Your task to perform on an android device: Go to privacy settings Image 0: 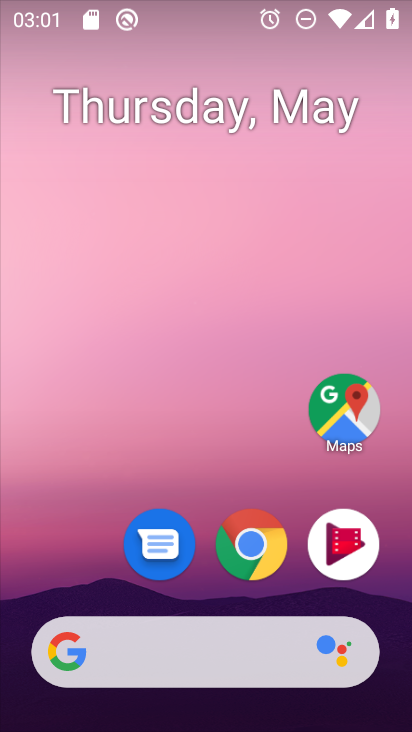
Step 0: drag from (67, 496) to (85, 137)
Your task to perform on an android device: Go to privacy settings Image 1: 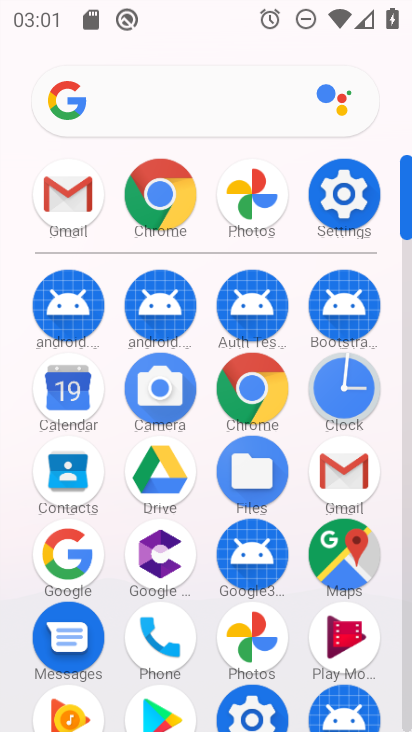
Step 1: click (367, 202)
Your task to perform on an android device: Go to privacy settings Image 2: 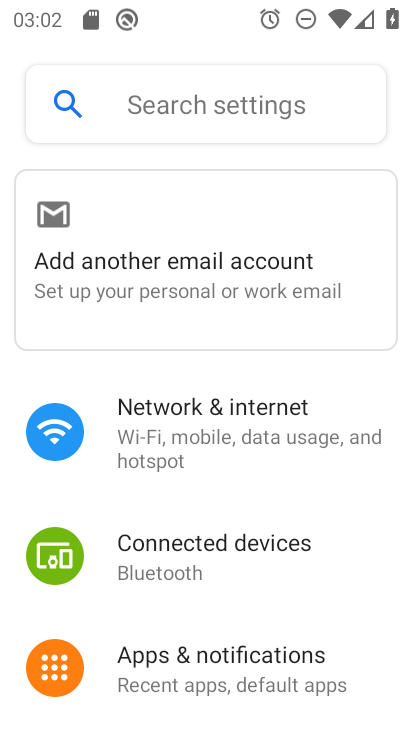
Step 2: drag from (352, 548) to (360, 415)
Your task to perform on an android device: Go to privacy settings Image 3: 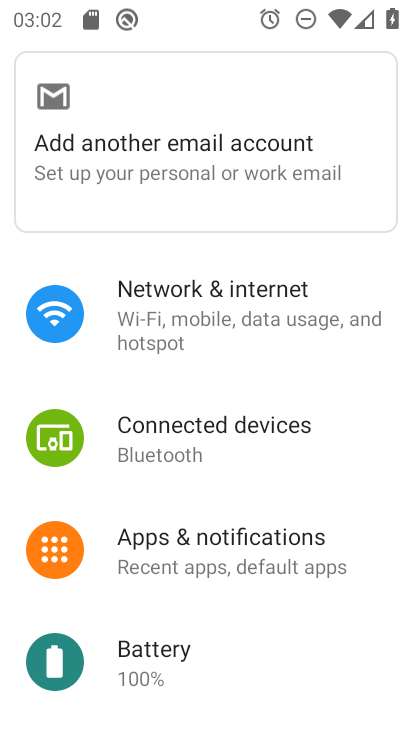
Step 3: drag from (359, 619) to (363, 479)
Your task to perform on an android device: Go to privacy settings Image 4: 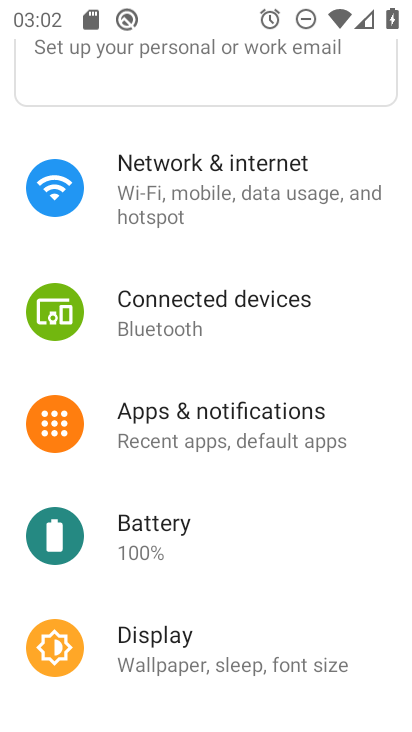
Step 4: drag from (342, 603) to (339, 433)
Your task to perform on an android device: Go to privacy settings Image 5: 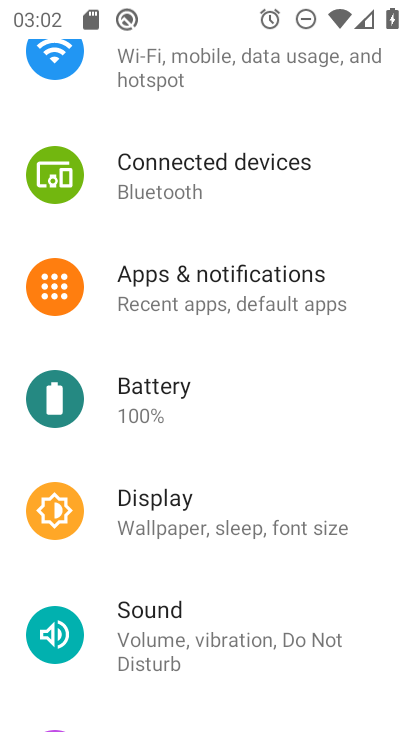
Step 5: drag from (326, 615) to (324, 431)
Your task to perform on an android device: Go to privacy settings Image 6: 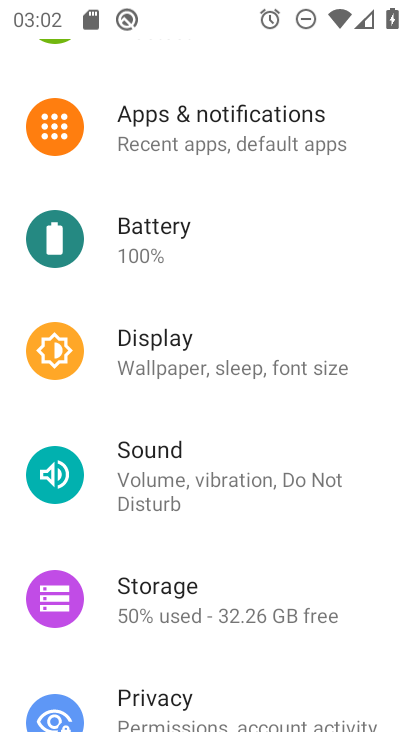
Step 6: drag from (338, 658) to (339, 473)
Your task to perform on an android device: Go to privacy settings Image 7: 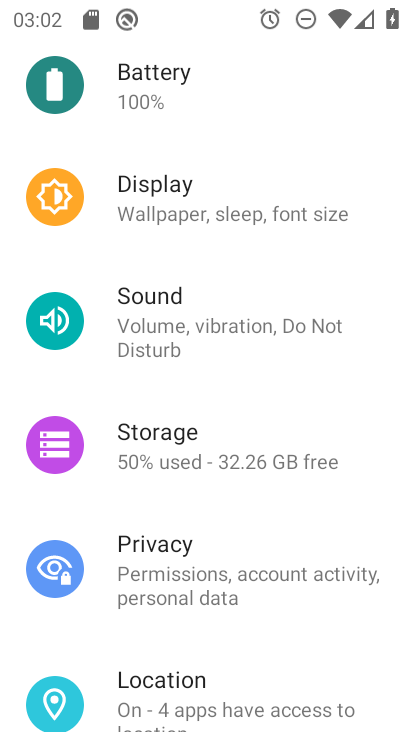
Step 7: drag from (330, 647) to (330, 503)
Your task to perform on an android device: Go to privacy settings Image 8: 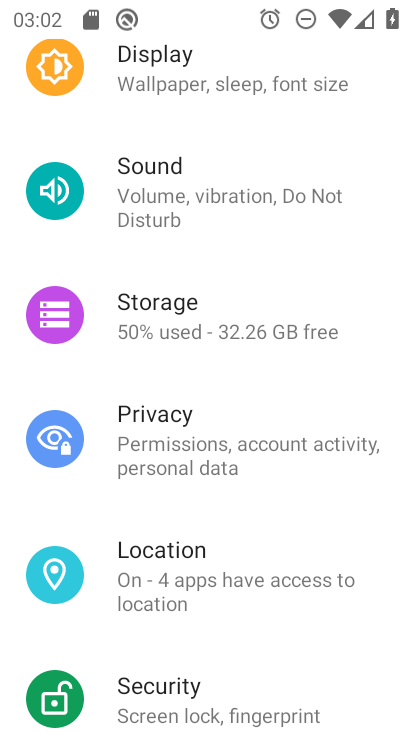
Step 8: drag from (327, 668) to (320, 517)
Your task to perform on an android device: Go to privacy settings Image 9: 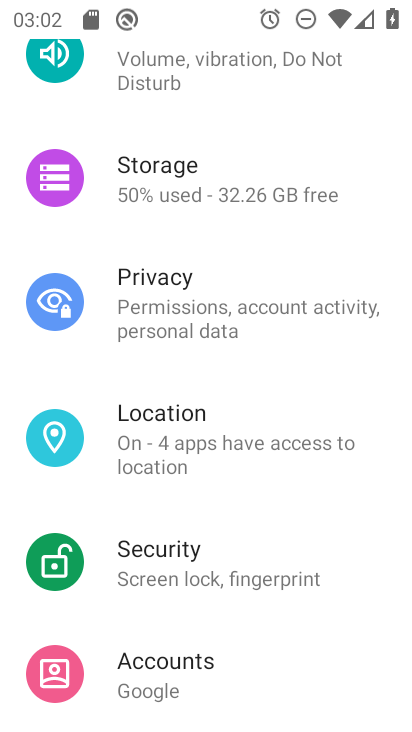
Step 9: drag from (324, 661) to (329, 531)
Your task to perform on an android device: Go to privacy settings Image 10: 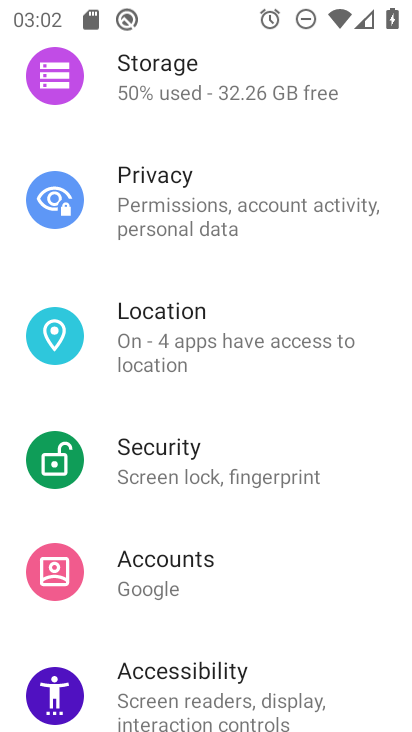
Step 10: drag from (326, 682) to (337, 542)
Your task to perform on an android device: Go to privacy settings Image 11: 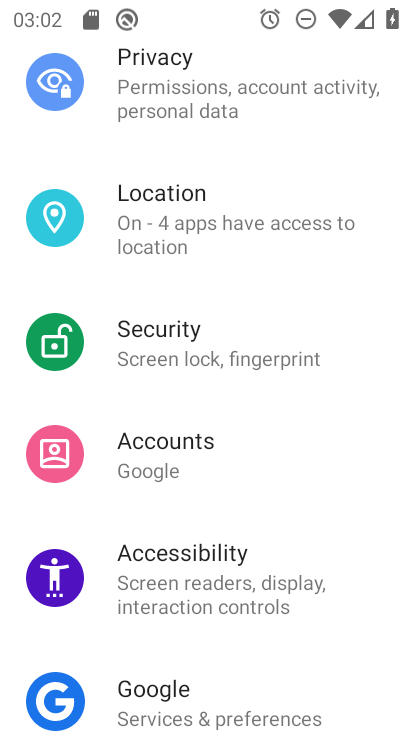
Step 11: drag from (326, 659) to (317, 511)
Your task to perform on an android device: Go to privacy settings Image 12: 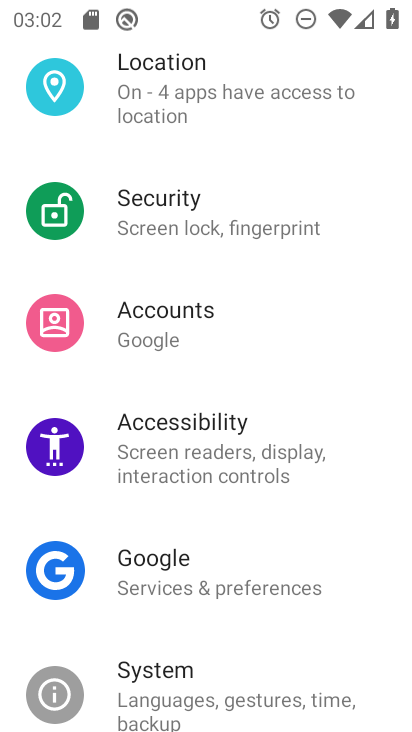
Step 12: drag from (336, 640) to (357, 492)
Your task to perform on an android device: Go to privacy settings Image 13: 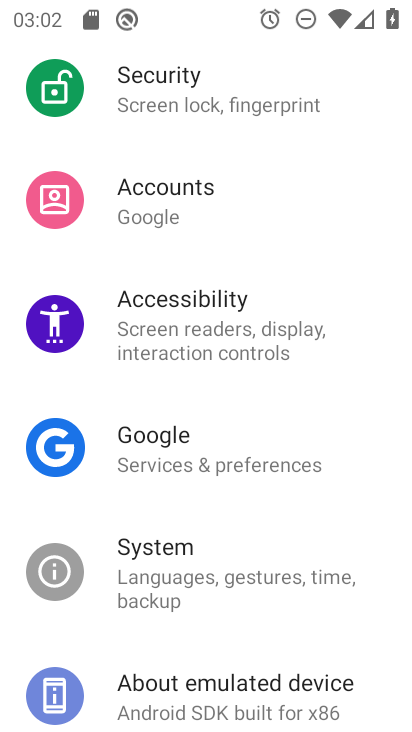
Step 13: drag from (352, 622) to (368, 451)
Your task to perform on an android device: Go to privacy settings Image 14: 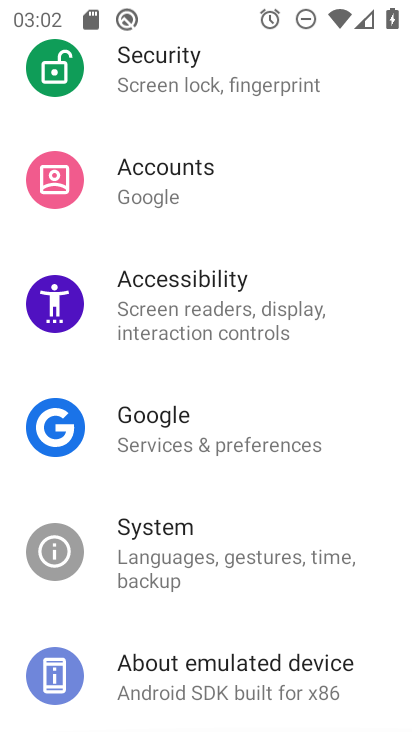
Step 14: drag from (379, 384) to (364, 511)
Your task to perform on an android device: Go to privacy settings Image 15: 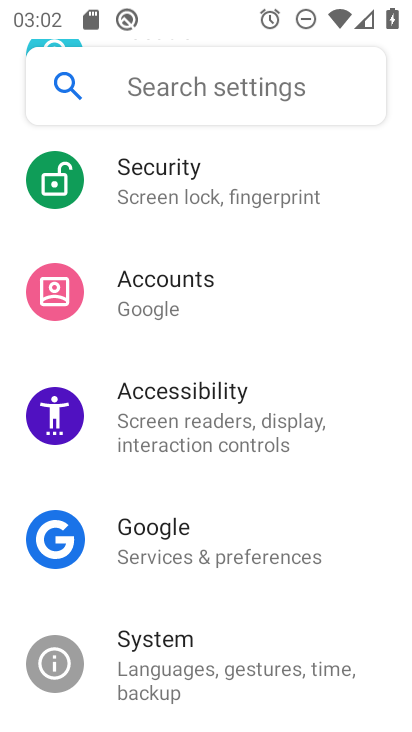
Step 15: drag from (373, 364) to (366, 488)
Your task to perform on an android device: Go to privacy settings Image 16: 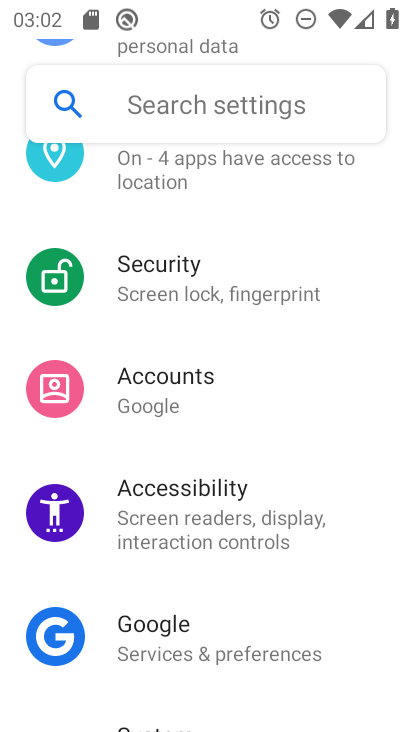
Step 16: drag from (371, 311) to (353, 445)
Your task to perform on an android device: Go to privacy settings Image 17: 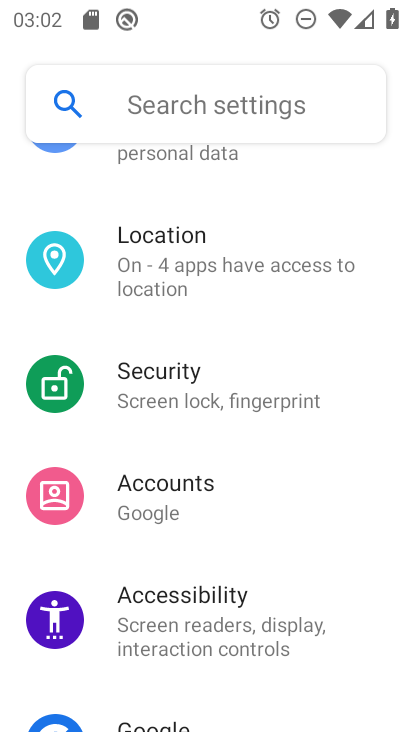
Step 17: drag from (351, 285) to (334, 418)
Your task to perform on an android device: Go to privacy settings Image 18: 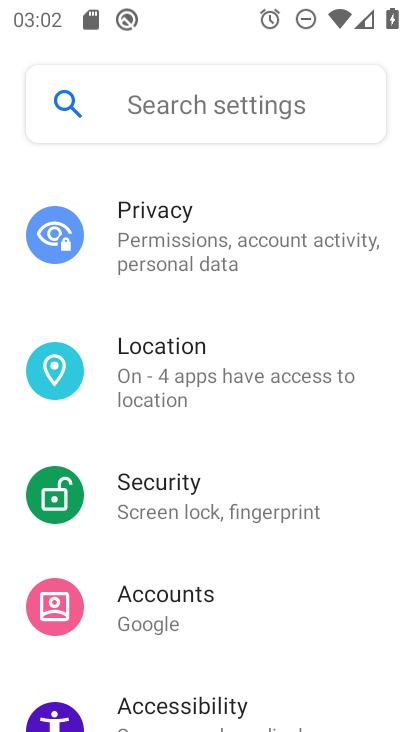
Step 18: drag from (363, 230) to (346, 368)
Your task to perform on an android device: Go to privacy settings Image 19: 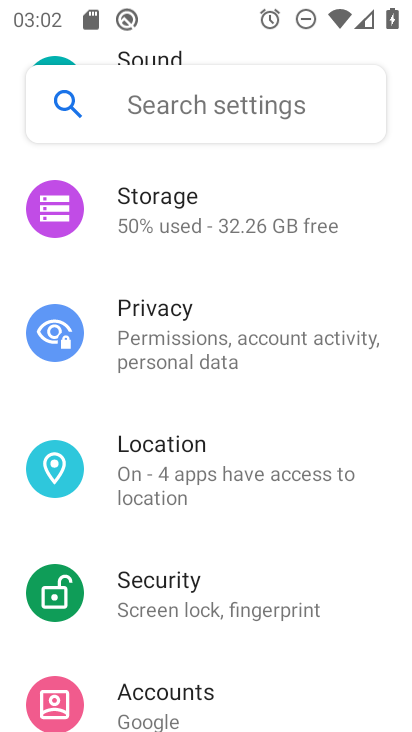
Step 19: click (294, 344)
Your task to perform on an android device: Go to privacy settings Image 20: 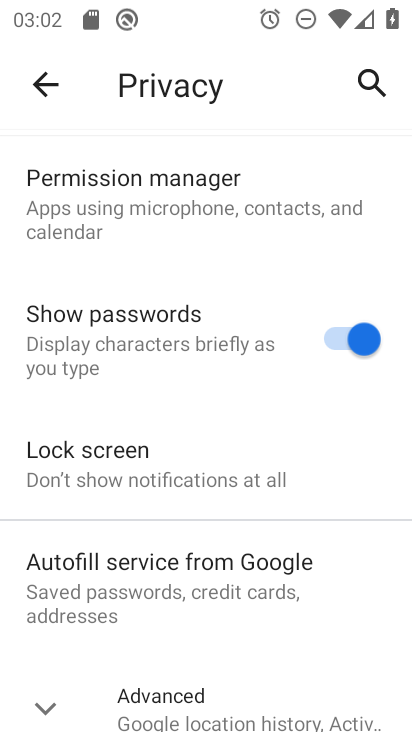
Step 20: task complete